Your task to perform on an android device: turn off location history Image 0: 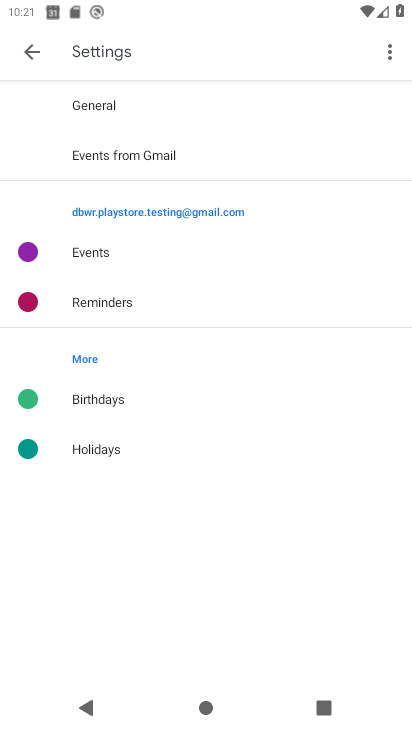
Step 0: press home button
Your task to perform on an android device: turn off location history Image 1: 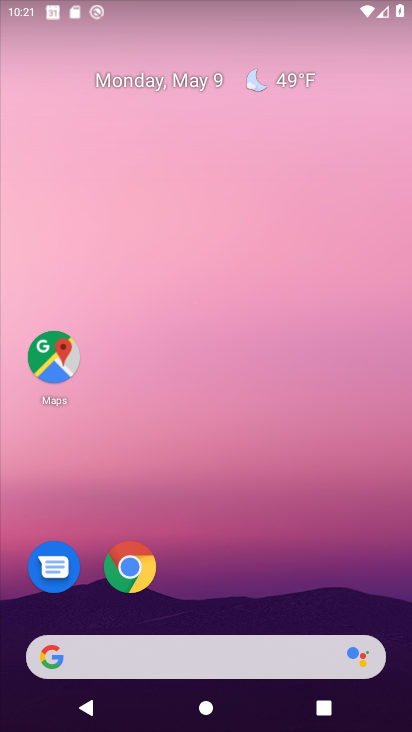
Step 1: drag from (225, 631) to (233, 193)
Your task to perform on an android device: turn off location history Image 2: 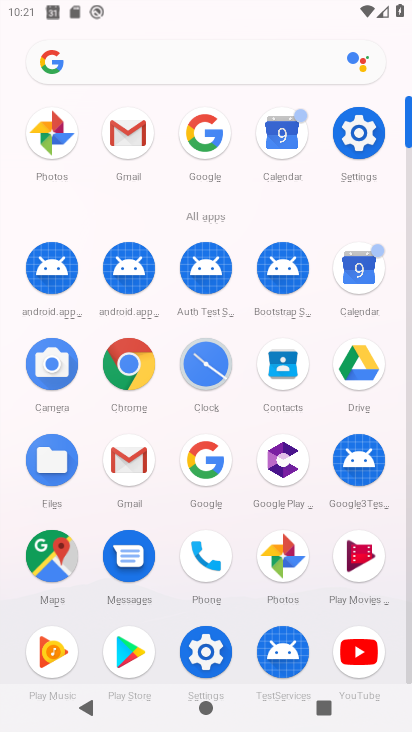
Step 2: click (357, 133)
Your task to perform on an android device: turn off location history Image 3: 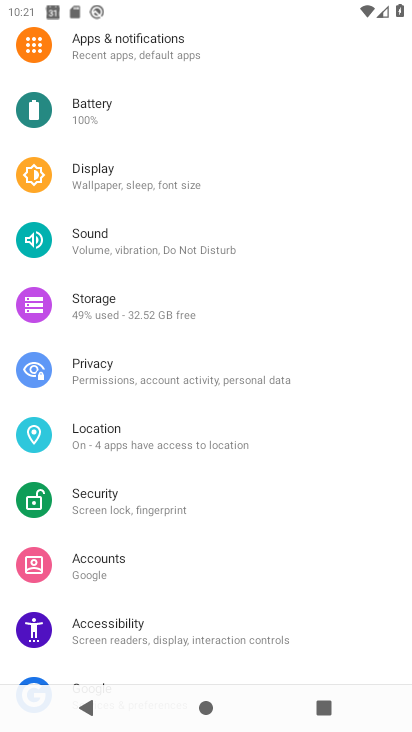
Step 3: click (126, 41)
Your task to perform on an android device: turn off location history Image 4: 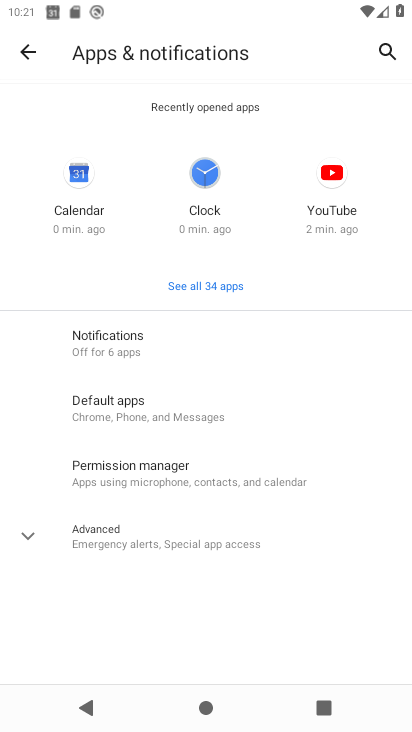
Step 4: press back button
Your task to perform on an android device: turn off location history Image 5: 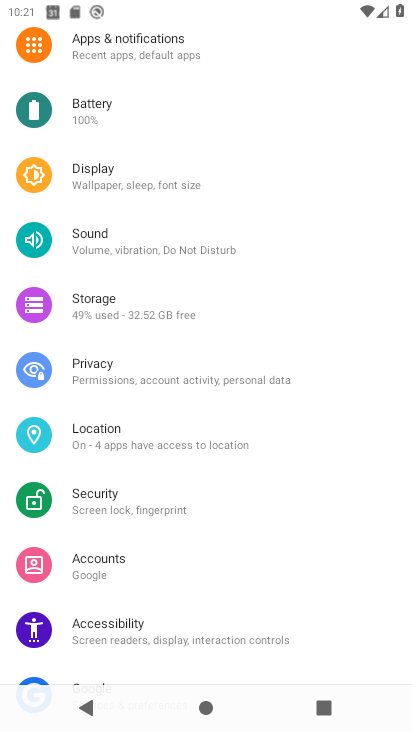
Step 5: click (100, 430)
Your task to perform on an android device: turn off location history Image 6: 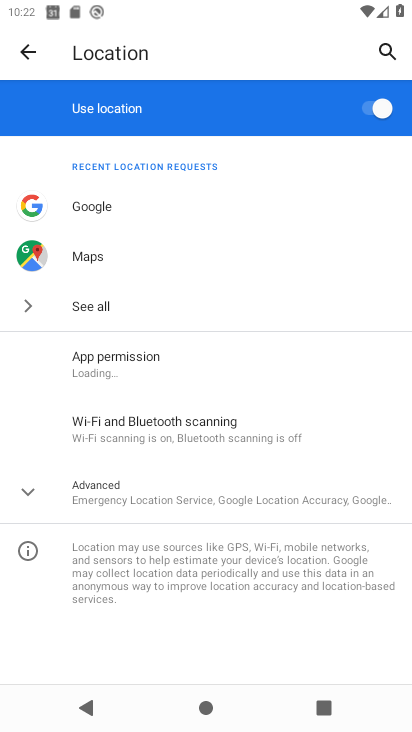
Step 6: click (110, 494)
Your task to perform on an android device: turn off location history Image 7: 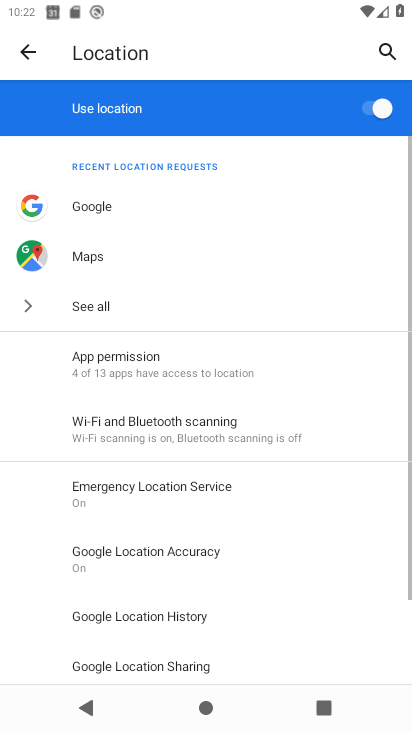
Step 7: click (131, 622)
Your task to perform on an android device: turn off location history Image 8: 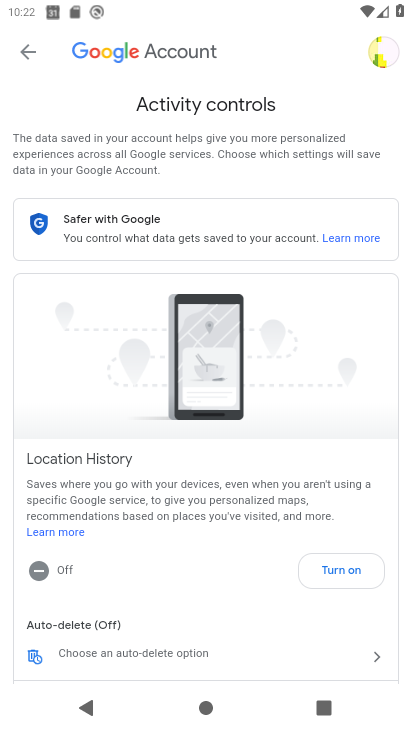
Step 8: task complete